Your task to perform on an android device: Open Amazon Image 0: 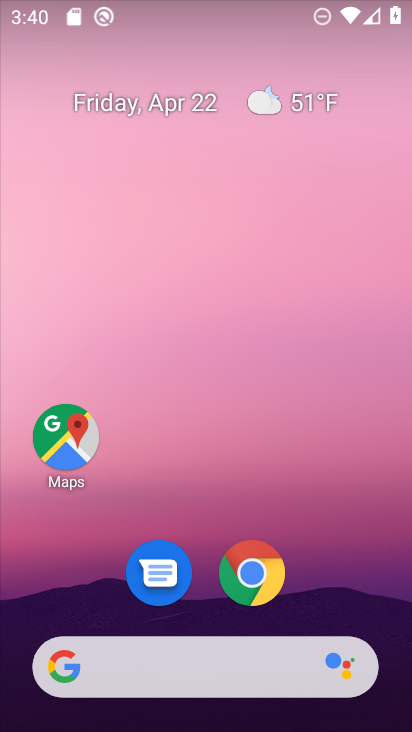
Step 0: drag from (308, 602) to (302, 135)
Your task to perform on an android device: Open Amazon Image 1: 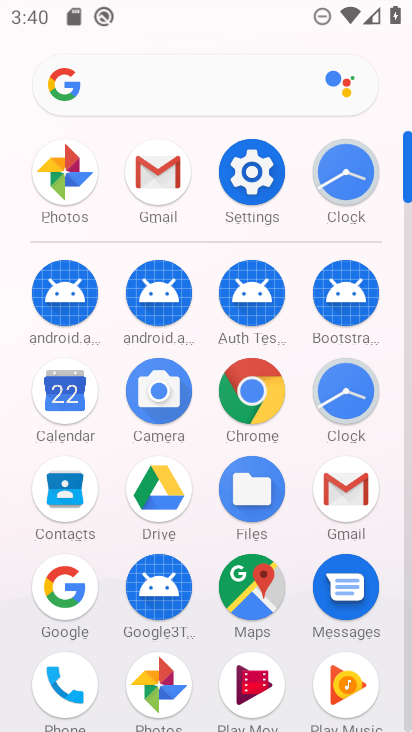
Step 1: click (260, 181)
Your task to perform on an android device: Open Amazon Image 2: 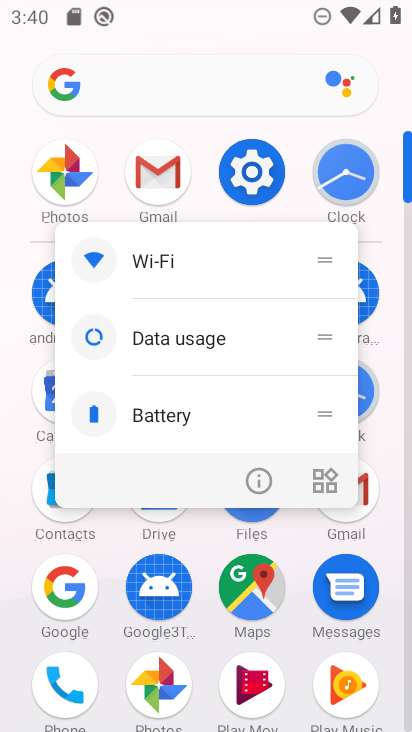
Step 2: press home button
Your task to perform on an android device: Open Amazon Image 3: 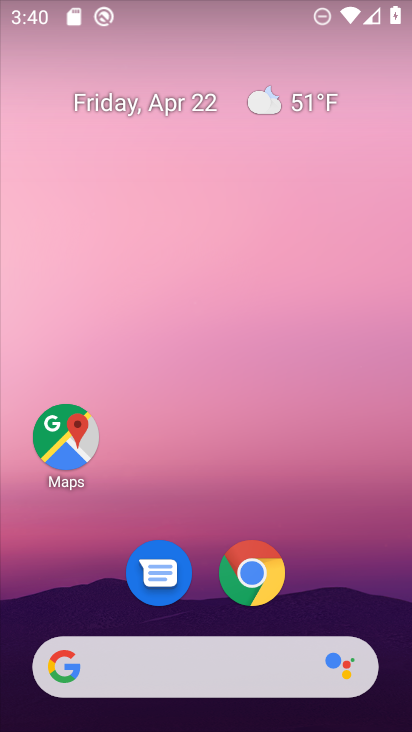
Step 3: click (268, 579)
Your task to perform on an android device: Open Amazon Image 4: 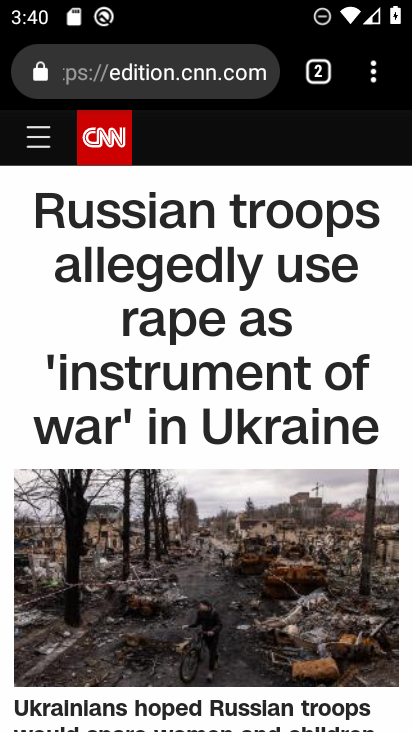
Step 4: click (316, 77)
Your task to perform on an android device: Open Amazon Image 5: 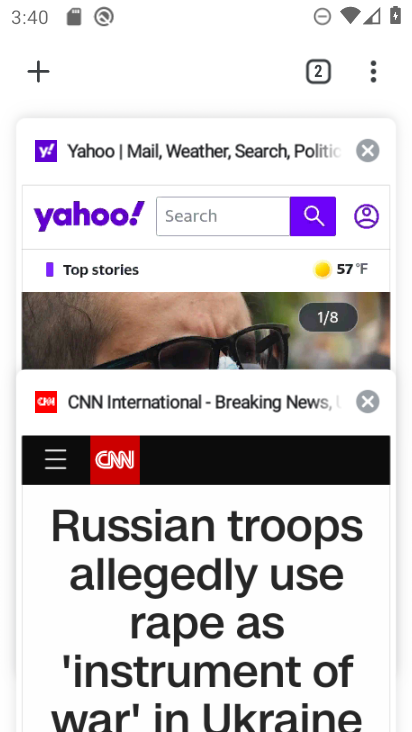
Step 5: click (46, 76)
Your task to perform on an android device: Open Amazon Image 6: 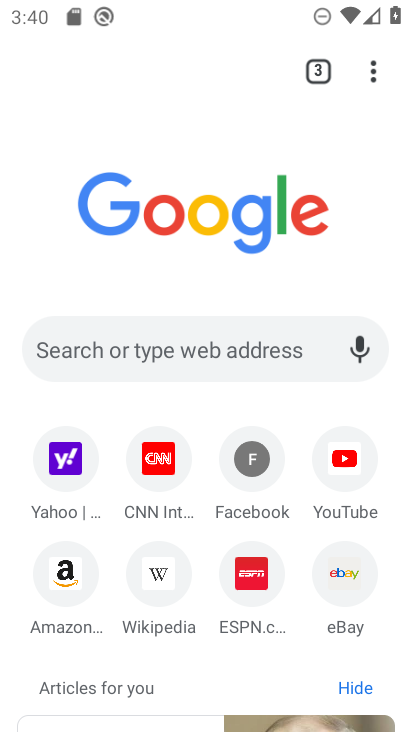
Step 6: click (76, 568)
Your task to perform on an android device: Open Amazon Image 7: 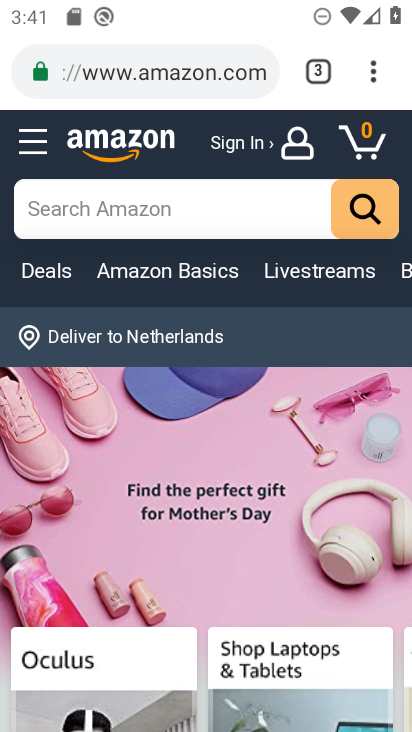
Step 7: task complete